Your task to perform on an android device: Go to Wikipedia Image 0: 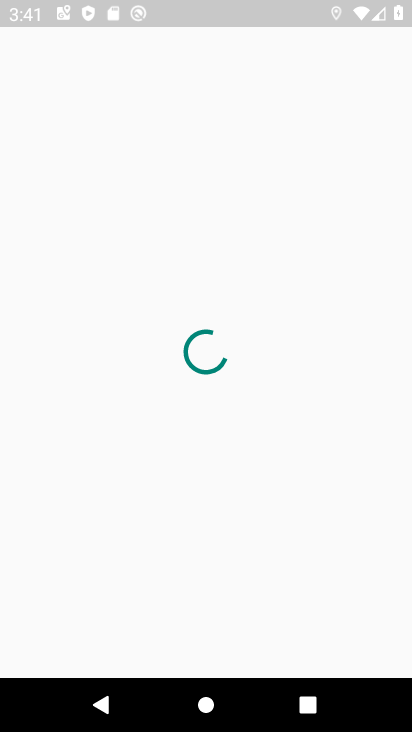
Step 0: press home button
Your task to perform on an android device: Go to Wikipedia Image 1: 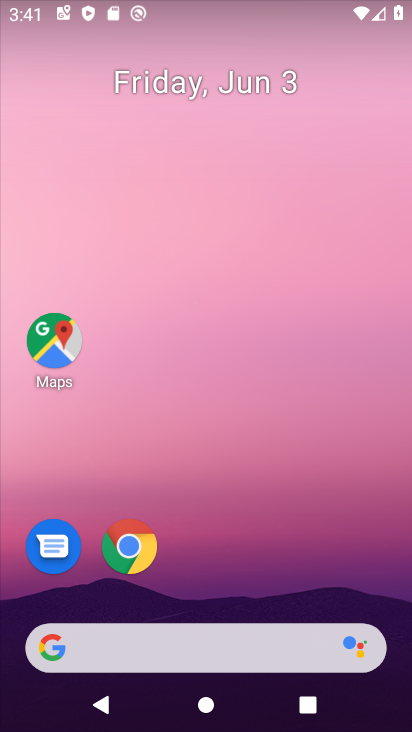
Step 1: click (144, 550)
Your task to perform on an android device: Go to Wikipedia Image 2: 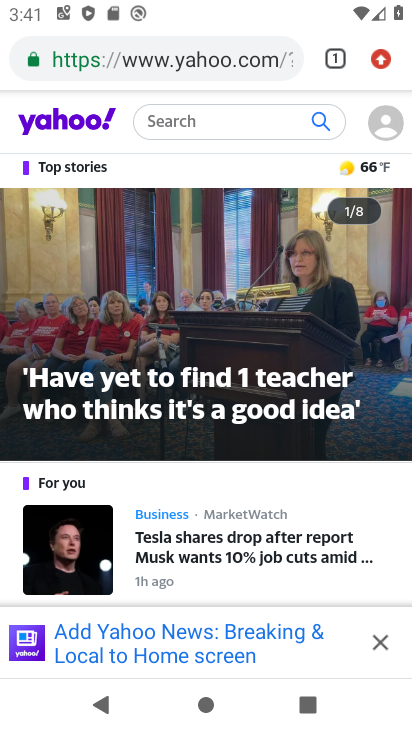
Step 2: click (384, 53)
Your task to perform on an android device: Go to Wikipedia Image 3: 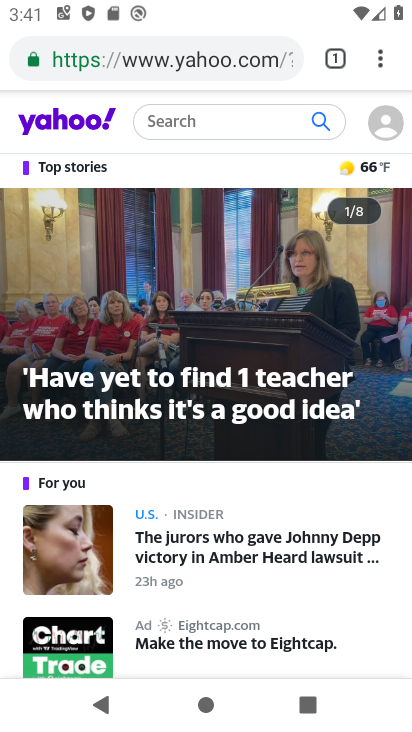
Step 3: click (378, 58)
Your task to perform on an android device: Go to Wikipedia Image 4: 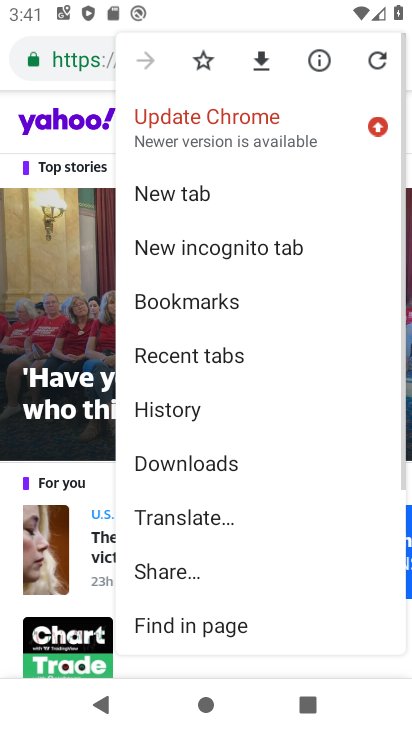
Step 4: click (250, 191)
Your task to perform on an android device: Go to Wikipedia Image 5: 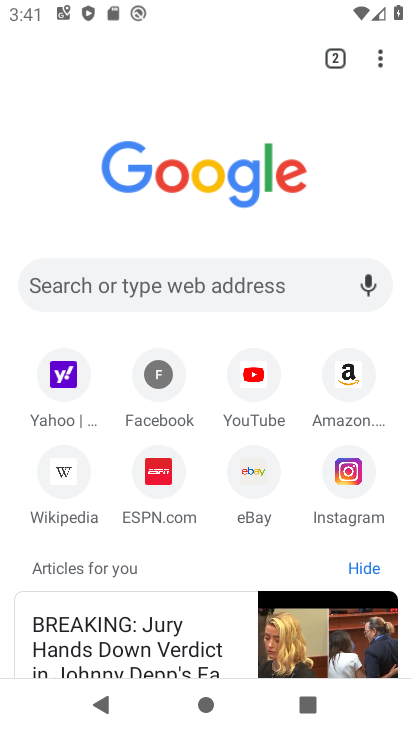
Step 5: click (54, 469)
Your task to perform on an android device: Go to Wikipedia Image 6: 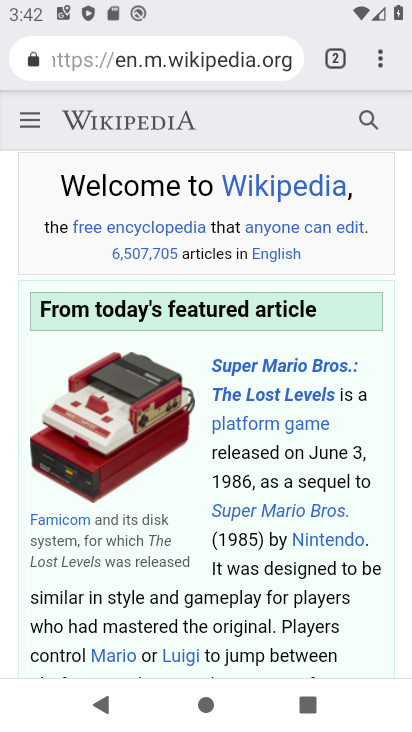
Step 6: task complete